Your task to perform on an android device: turn on bluetooth scan Image 0: 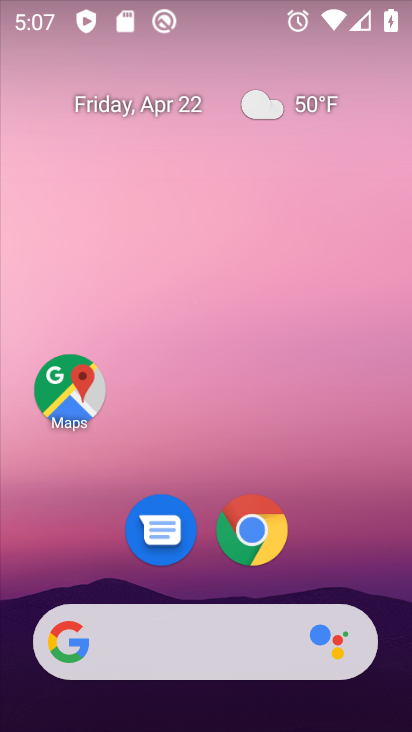
Step 0: drag from (343, 565) to (350, 143)
Your task to perform on an android device: turn on bluetooth scan Image 1: 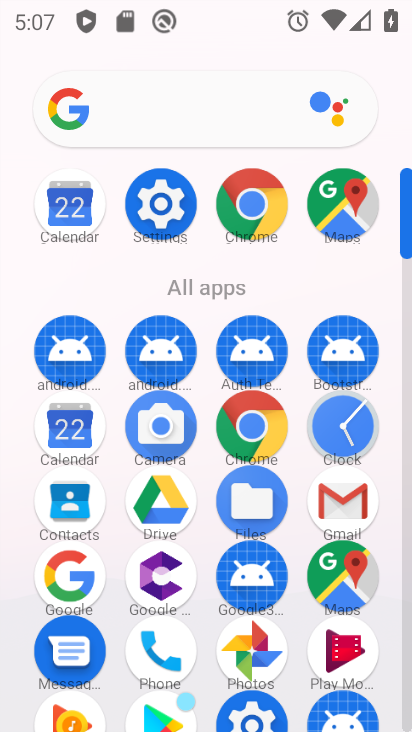
Step 1: drag from (300, 303) to (312, 71)
Your task to perform on an android device: turn on bluetooth scan Image 2: 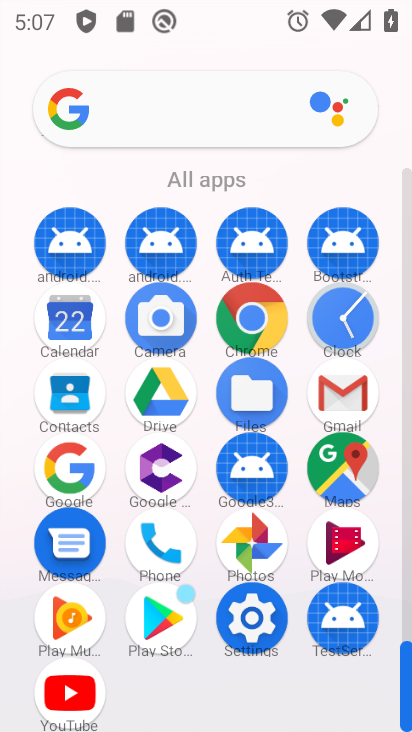
Step 2: click (259, 607)
Your task to perform on an android device: turn on bluetooth scan Image 3: 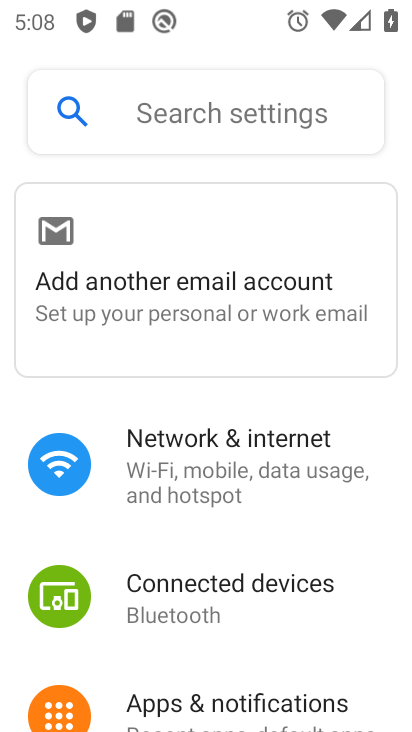
Step 3: drag from (365, 493) to (350, 199)
Your task to perform on an android device: turn on bluetooth scan Image 4: 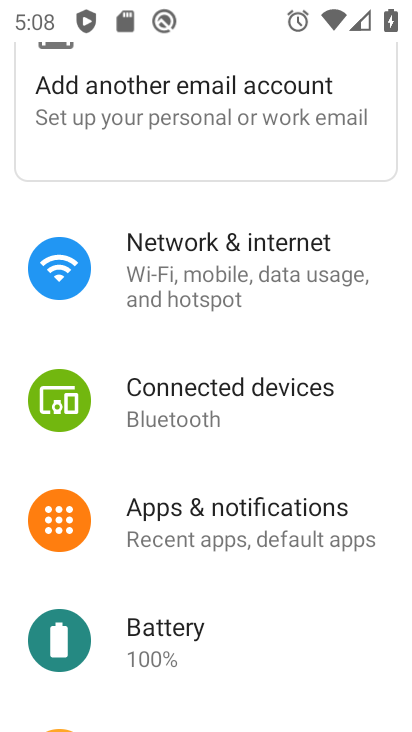
Step 4: drag from (354, 666) to (347, 219)
Your task to perform on an android device: turn on bluetooth scan Image 5: 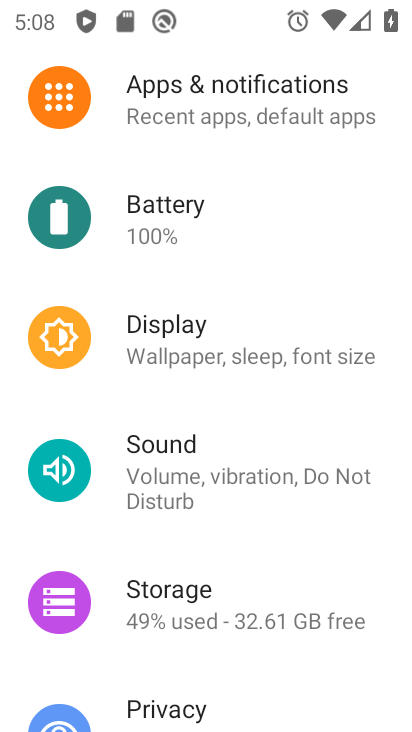
Step 5: drag from (322, 662) to (320, 269)
Your task to perform on an android device: turn on bluetooth scan Image 6: 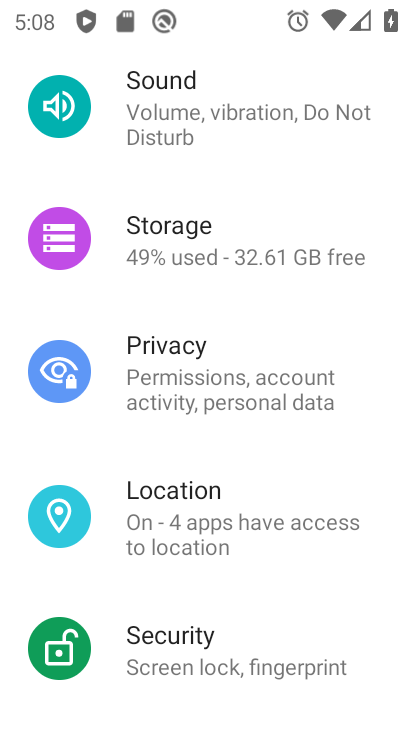
Step 6: click (181, 516)
Your task to perform on an android device: turn on bluetooth scan Image 7: 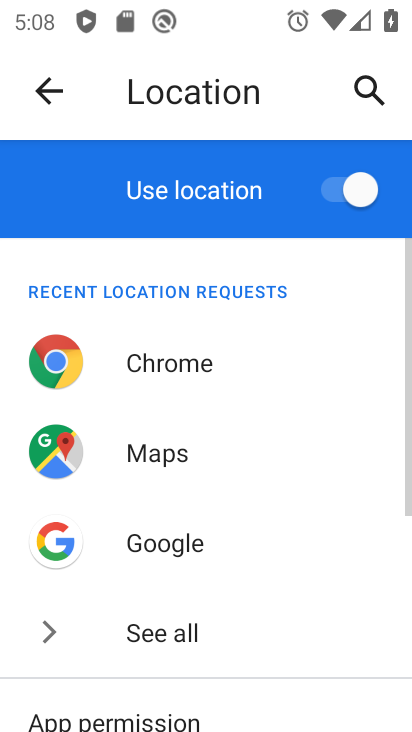
Step 7: drag from (382, 580) to (384, 282)
Your task to perform on an android device: turn on bluetooth scan Image 8: 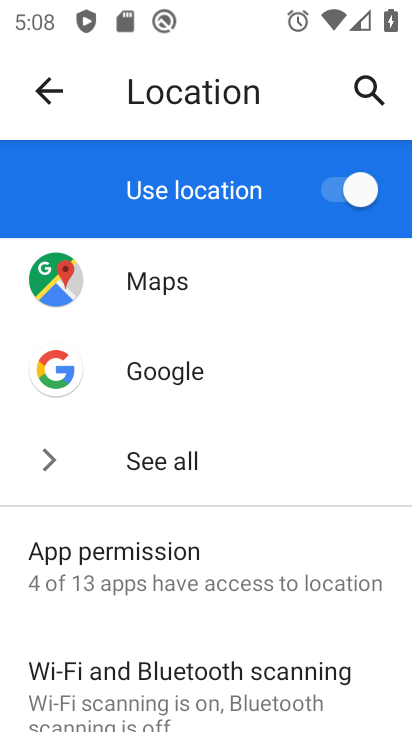
Step 8: click (212, 685)
Your task to perform on an android device: turn on bluetooth scan Image 9: 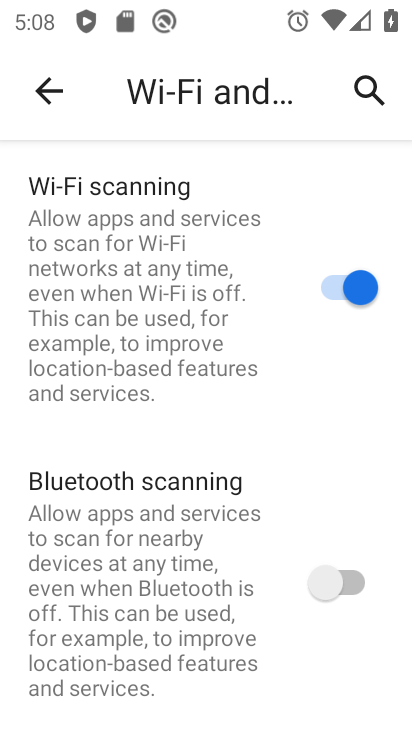
Step 9: click (357, 577)
Your task to perform on an android device: turn on bluetooth scan Image 10: 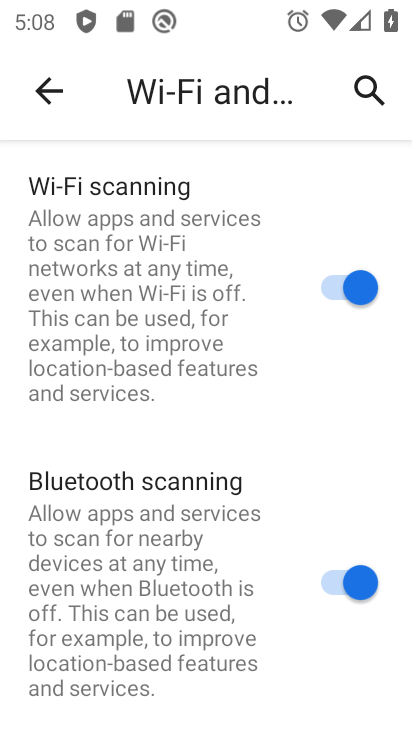
Step 10: task complete